Your task to perform on an android device: Open Chrome and go to settings Image 0: 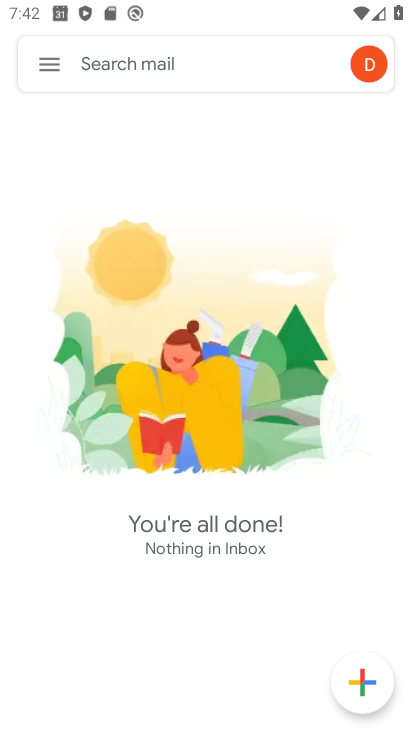
Step 0: press home button
Your task to perform on an android device: Open Chrome and go to settings Image 1: 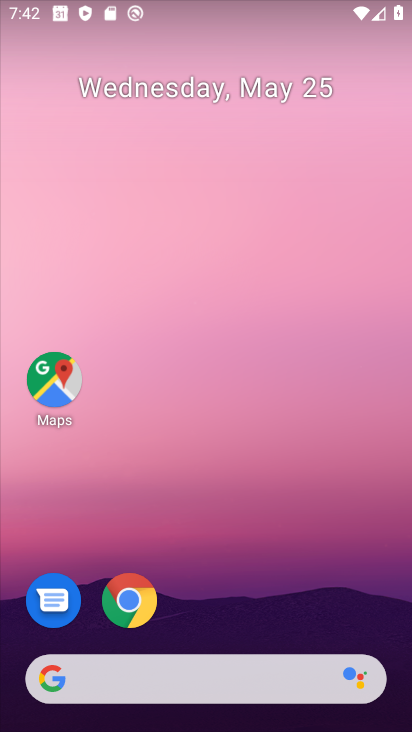
Step 1: click (130, 589)
Your task to perform on an android device: Open Chrome and go to settings Image 2: 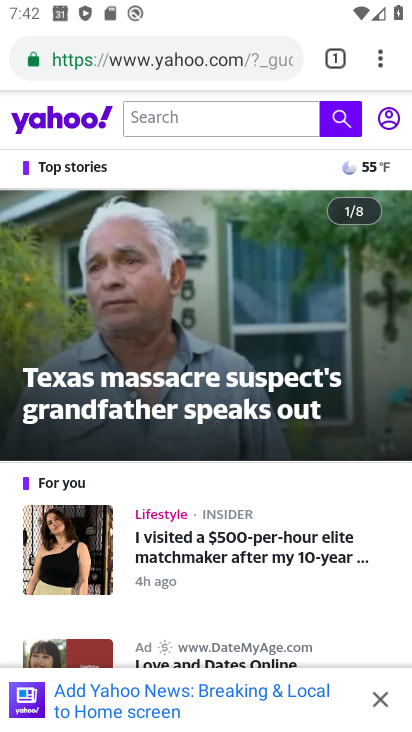
Step 2: click (381, 45)
Your task to perform on an android device: Open Chrome and go to settings Image 3: 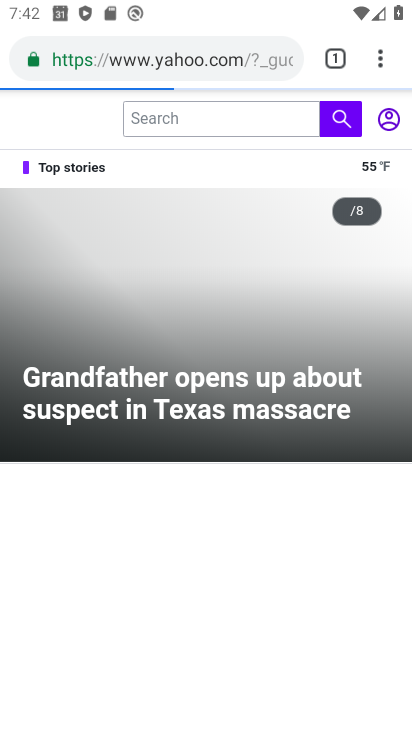
Step 3: task complete